Your task to perform on an android device: Open settings on Google Maps Image 0: 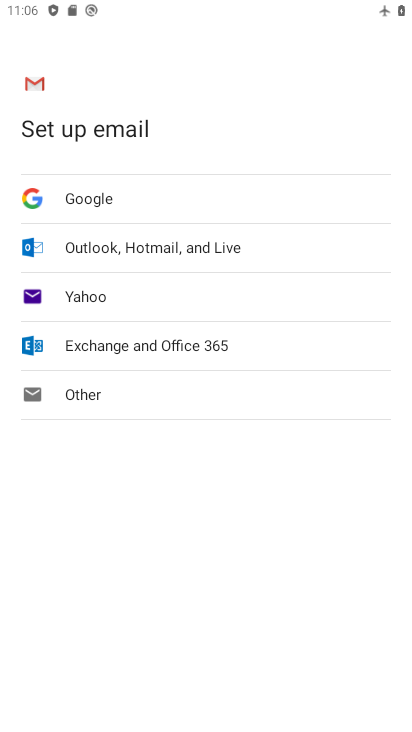
Step 0: press home button
Your task to perform on an android device: Open settings on Google Maps Image 1: 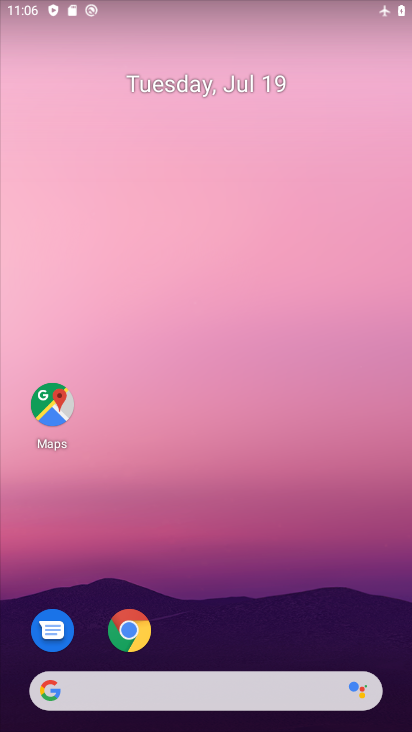
Step 1: click (40, 409)
Your task to perform on an android device: Open settings on Google Maps Image 2: 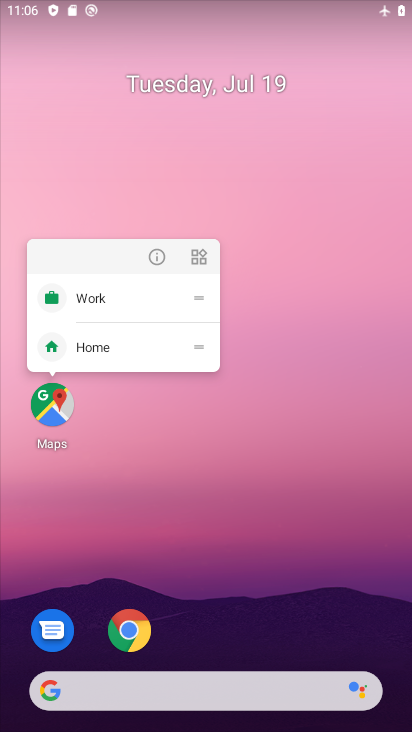
Step 2: click (45, 414)
Your task to perform on an android device: Open settings on Google Maps Image 3: 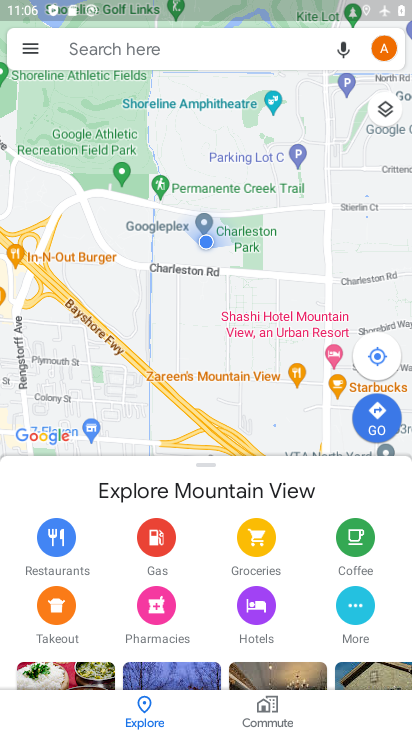
Step 3: click (28, 52)
Your task to perform on an android device: Open settings on Google Maps Image 4: 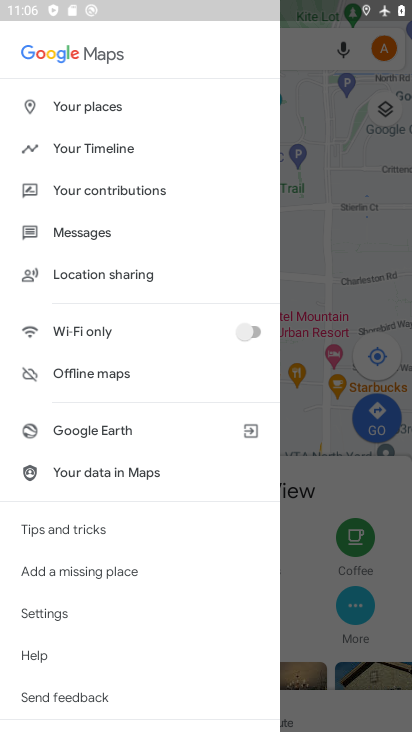
Step 4: click (50, 613)
Your task to perform on an android device: Open settings on Google Maps Image 5: 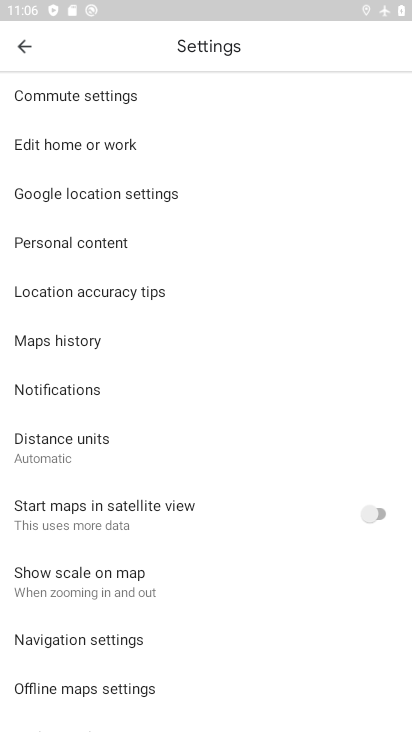
Step 5: task complete